Your task to perform on an android device: Find coffee shops on Maps Image 0: 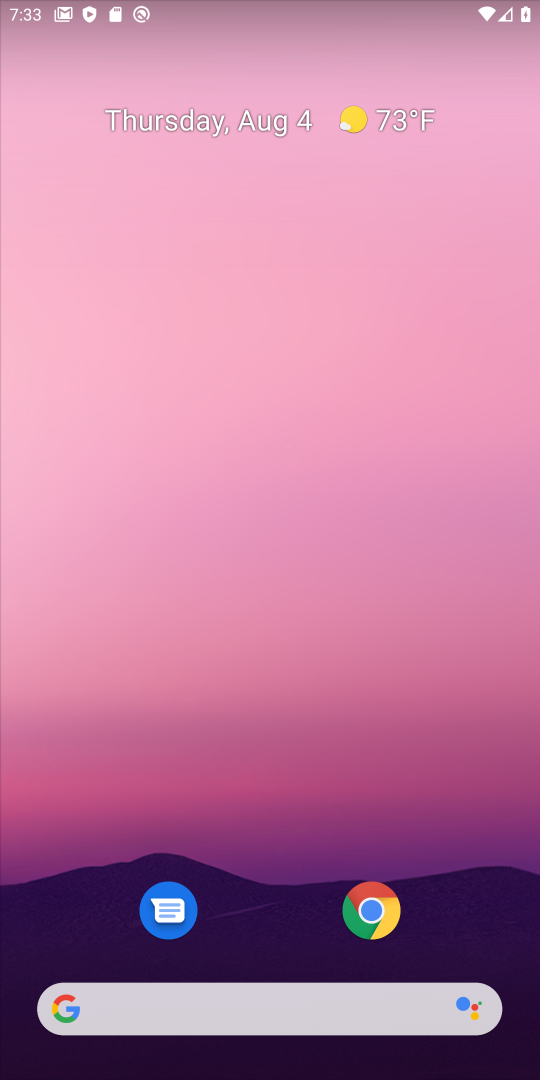
Step 0: drag from (445, 729) to (374, 199)
Your task to perform on an android device: Find coffee shops on Maps Image 1: 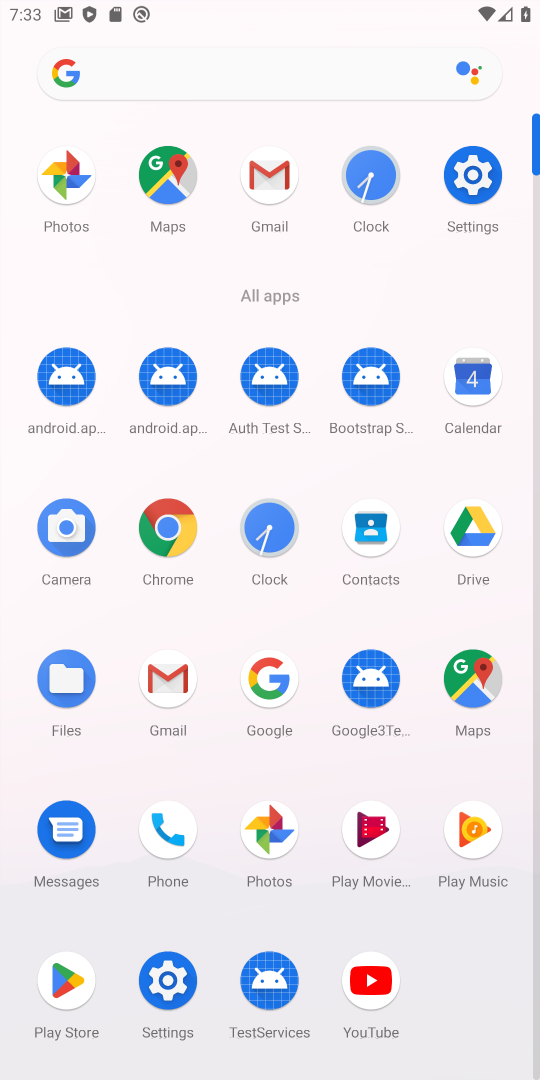
Step 1: click (478, 669)
Your task to perform on an android device: Find coffee shops on Maps Image 2: 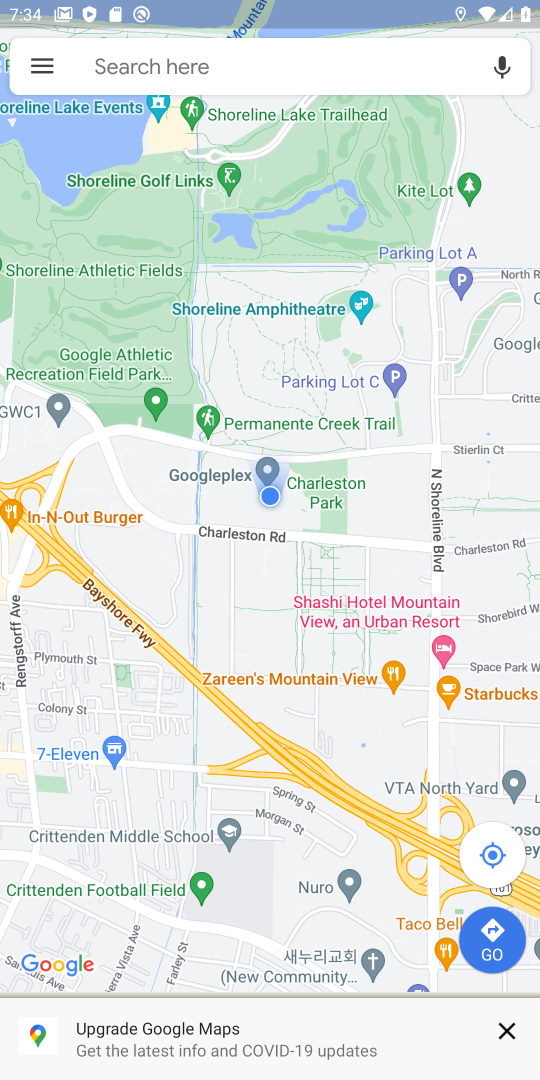
Step 2: click (246, 61)
Your task to perform on an android device: Find coffee shops on Maps Image 3: 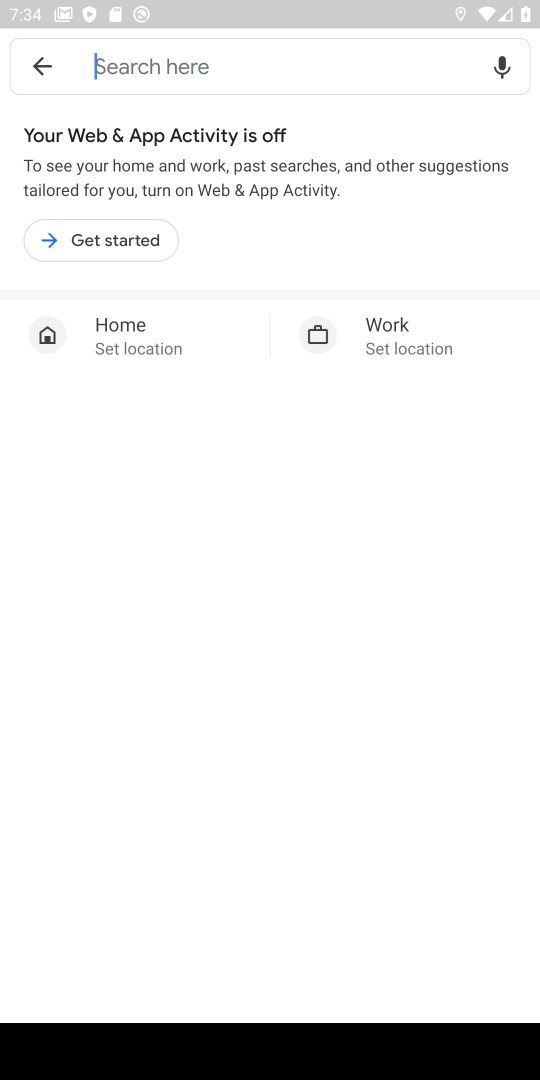
Step 3: type "coffee shops"
Your task to perform on an android device: Find coffee shops on Maps Image 4: 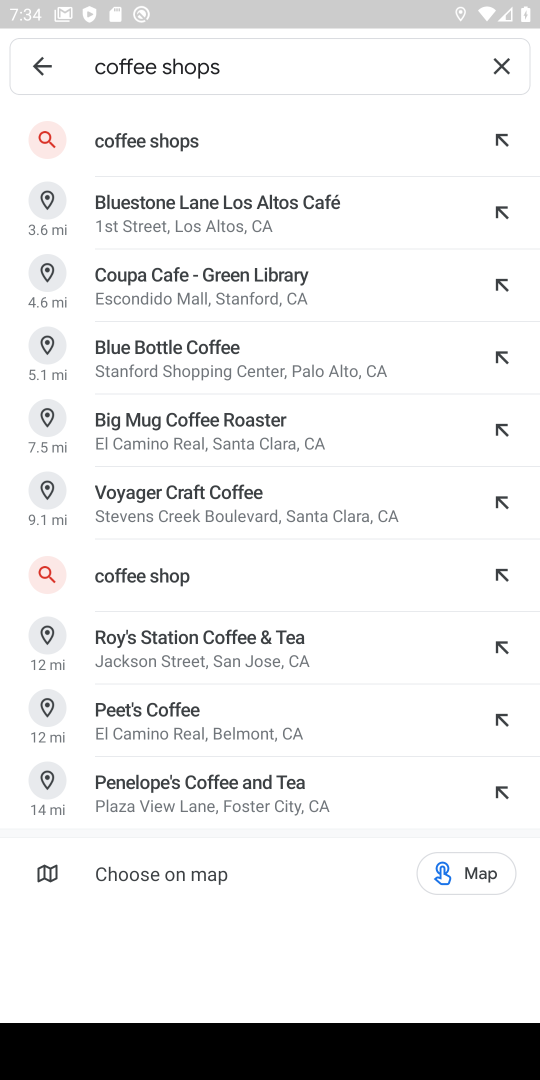
Step 4: click (344, 133)
Your task to perform on an android device: Find coffee shops on Maps Image 5: 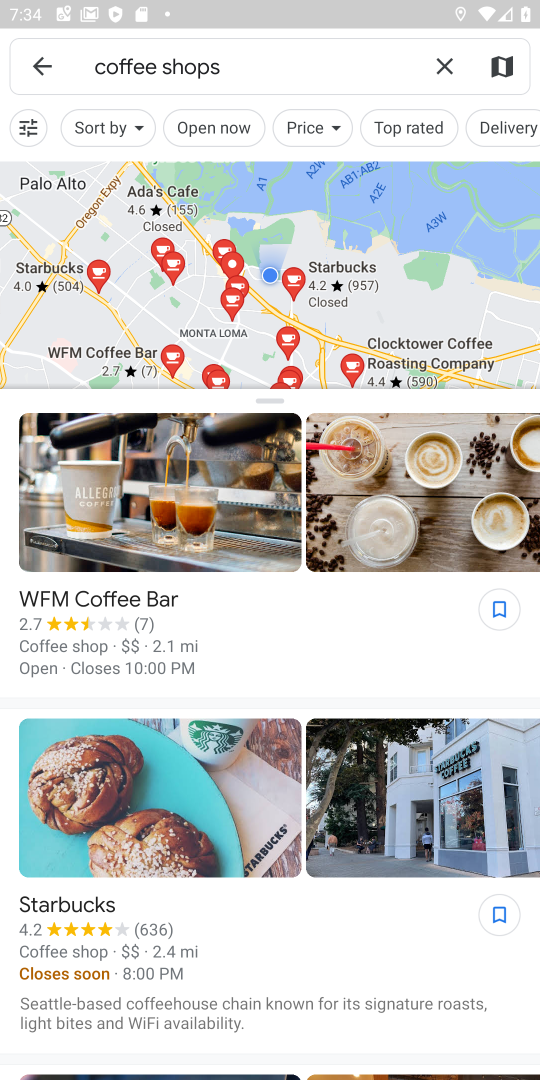
Step 5: task complete